Your task to perform on an android device: change the clock display to show seconds Image 0: 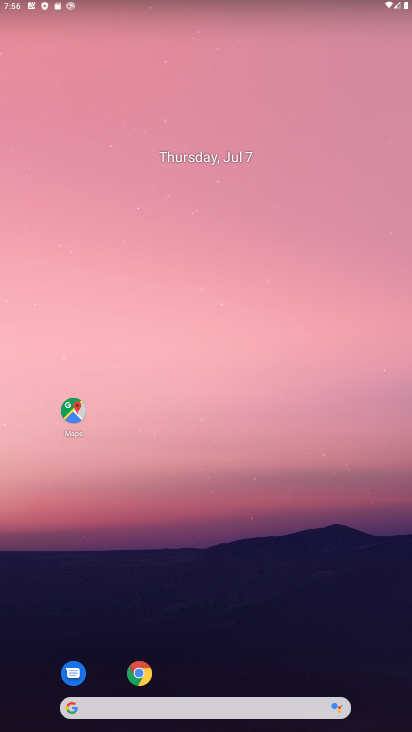
Step 0: press home button
Your task to perform on an android device: change the clock display to show seconds Image 1: 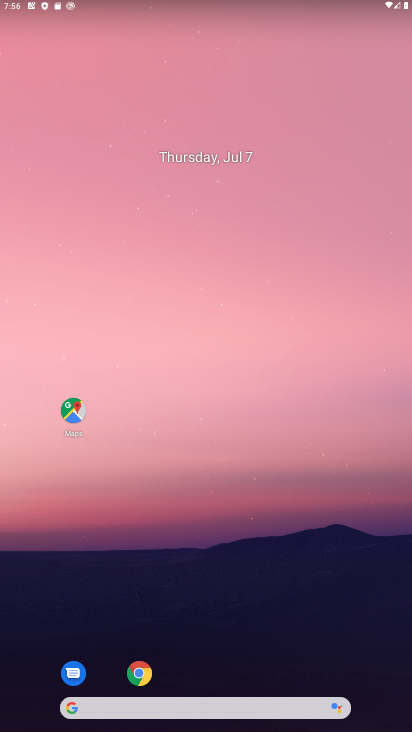
Step 1: drag from (255, 595) to (162, 15)
Your task to perform on an android device: change the clock display to show seconds Image 2: 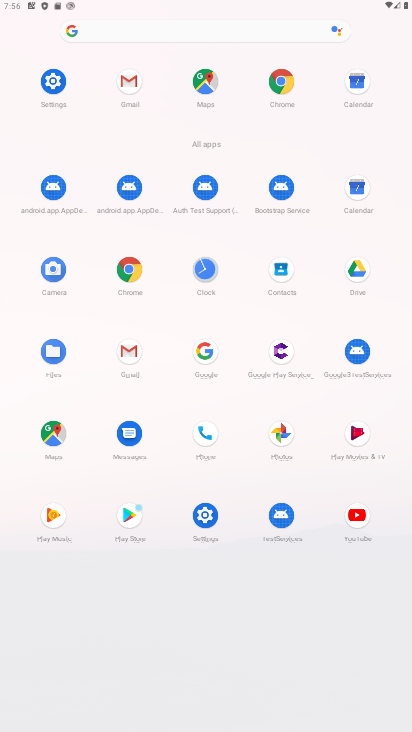
Step 2: click (59, 72)
Your task to perform on an android device: change the clock display to show seconds Image 3: 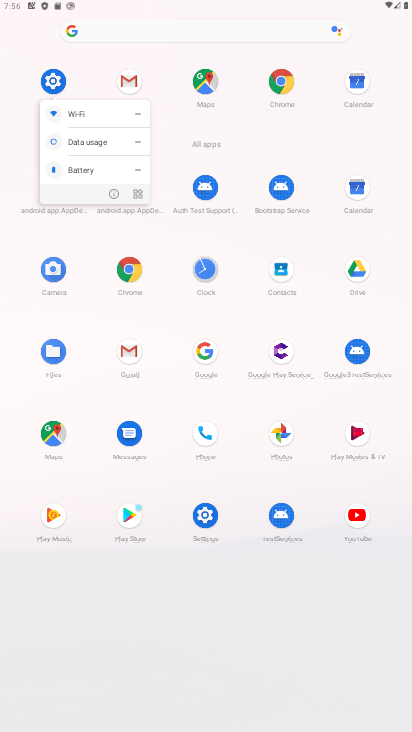
Step 3: click (201, 262)
Your task to perform on an android device: change the clock display to show seconds Image 4: 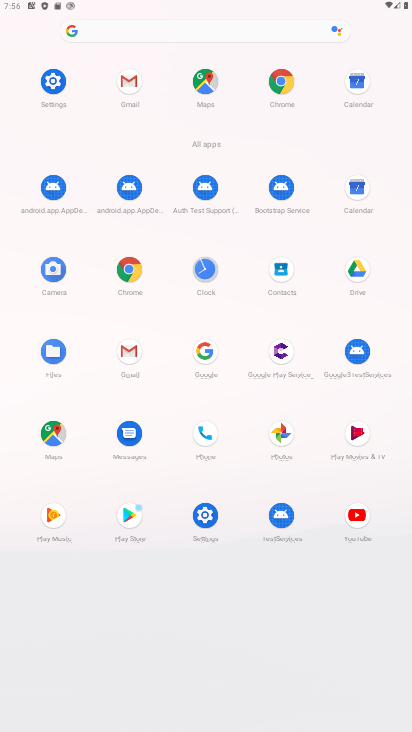
Step 4: click (206, 268)
Your task to perform on an android device: change the clock display to show seconds Image 5: 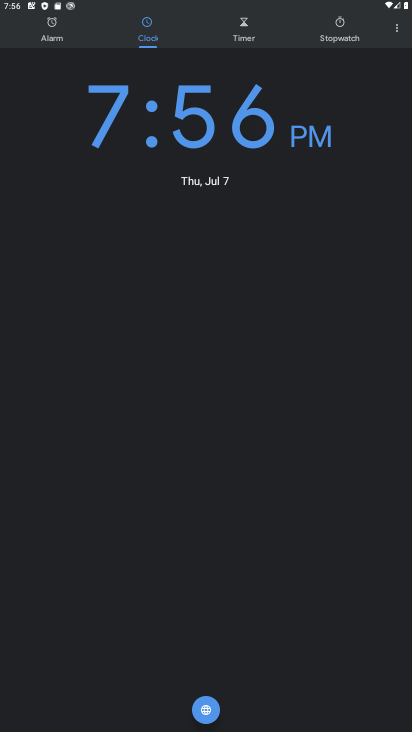
Step 5: click (397, 29)
Your task to perform on an android device: change the clock display to show seconds Image 6: 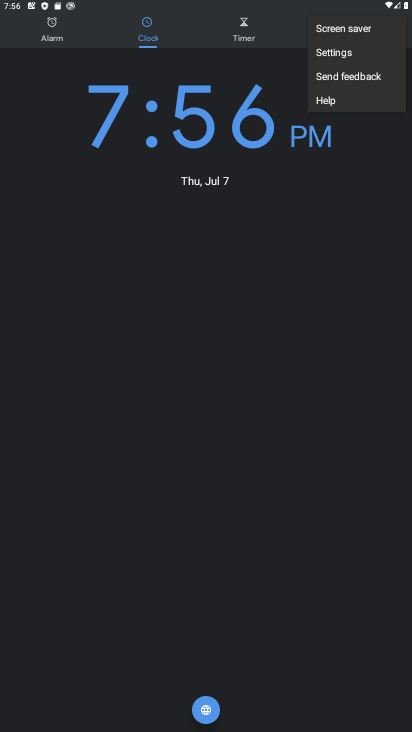
Step 6: click (347, 56)
Your task to perform on an android device: change the clock display to show seconds Image 7: 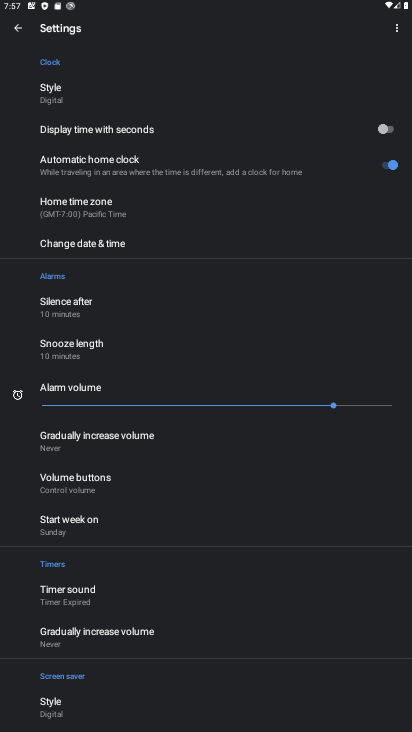
Step 7: click (385, 130)
Your task to perform on an android device: change the clock display to show seconds Image 8: 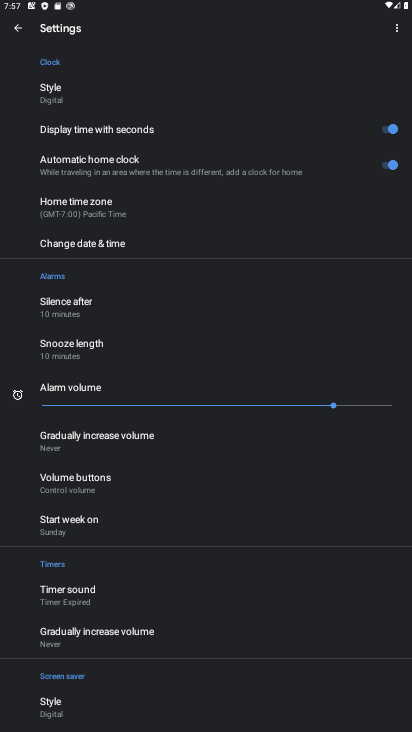
Step 8: task complete